Your task to perform on an android device: Open Google Image 0: 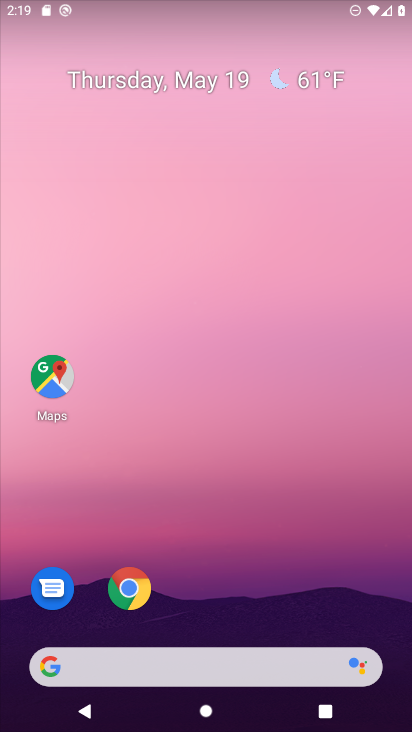
Step 0: drag from (263, 592) to (249, 20)
Your task to perform on an android device: Open Google Image 1: 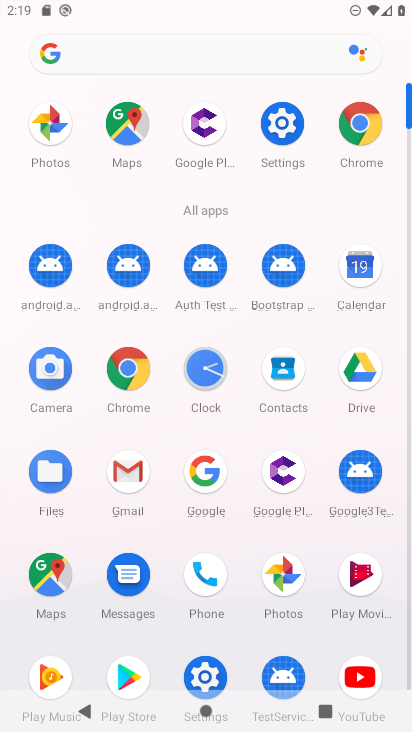
Step 1: click (204, 469)
Your task to perform on an android device: Open Google Image 2: 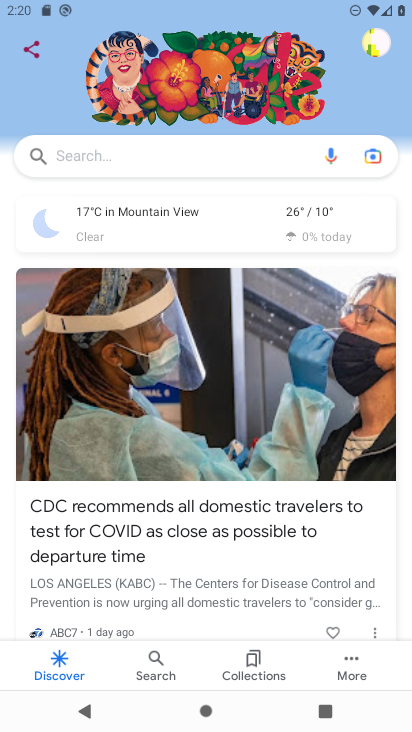
Step 2: task complete